Your task to perform on an android device: toggle pop-ups in chrome Image 0: 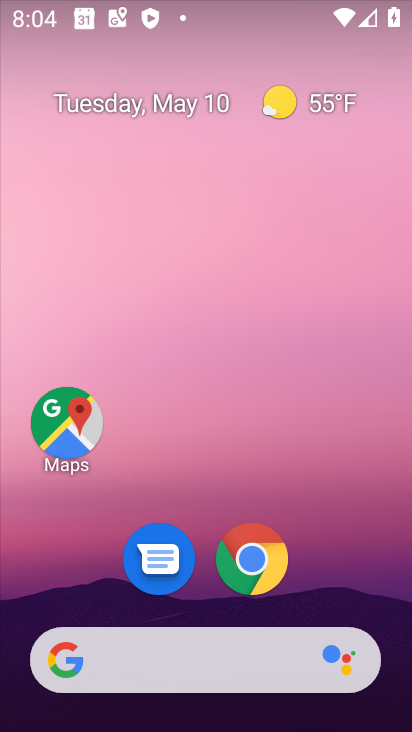
Step 0: click (248, 563)
Your task to perform on an android device: toggle pop-ups in chrome Image 1: 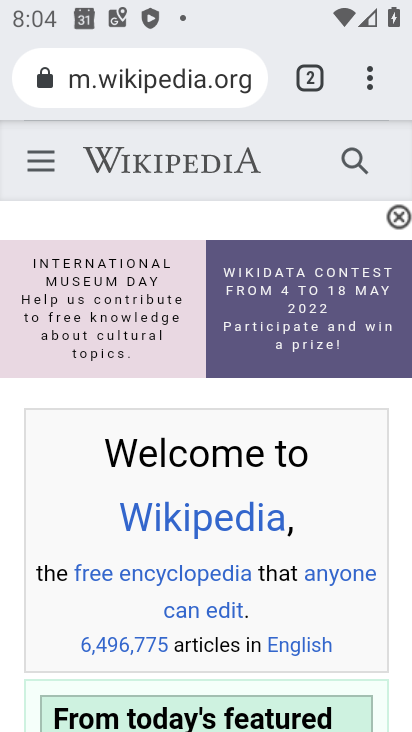
Step 1: click (367, 87)
Your task to perform on an android device: toggle pop-ups in chrome Image 2: 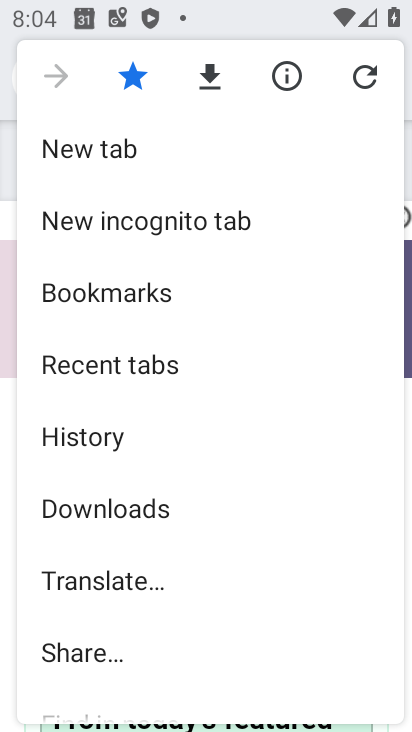
Step 2: drag from (134, 650) to (125, 309)
Your task to perform on an android device: toggle pop-ups in chrome Image 3: 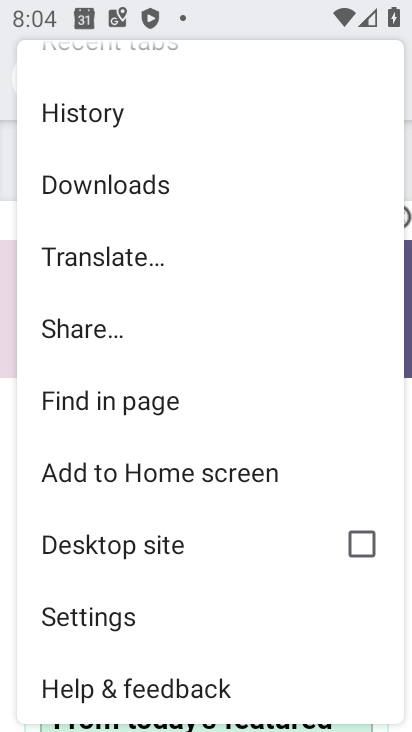
Step 3: click (113, 618)
Your task to perform on an android device: toggle pop-ups in chrome Image 4: 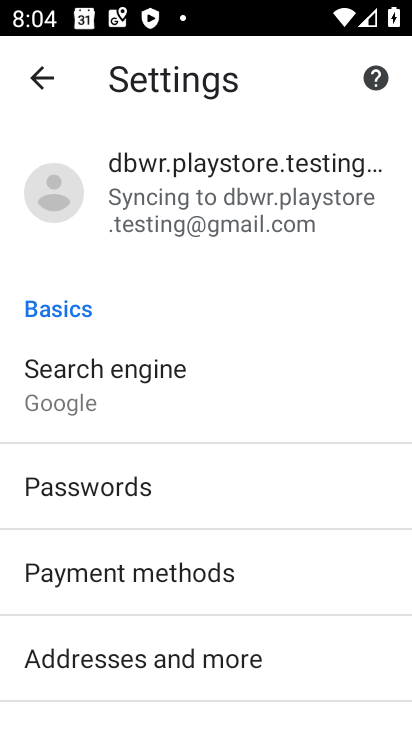
Step 4: drag from (132, 687) to (148, 252)
Your task to perform on an android device: toggle pop-ups in chrome Image 5: 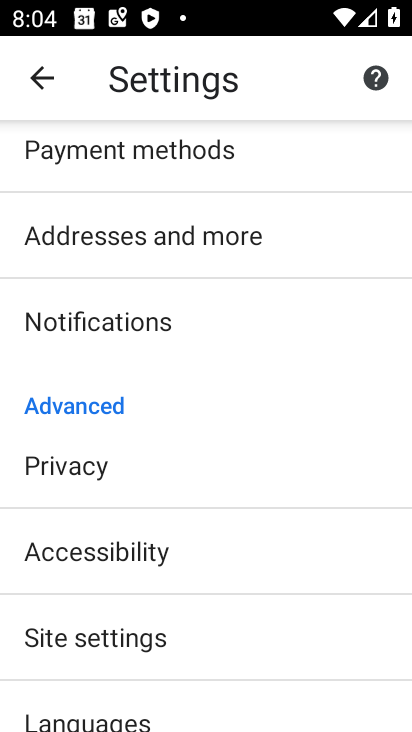
Step 5: drag from (135, 690) to (144, 426)
Your task to perform on an android device: toggle pop-ups in chrome Image 6: 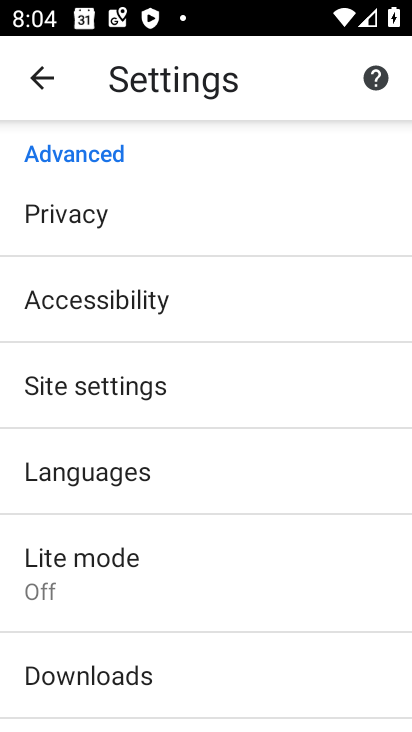
Step 6: click (115, 383)
Your task to perform on an android device: toggle pop-ups in chrome Image 7: 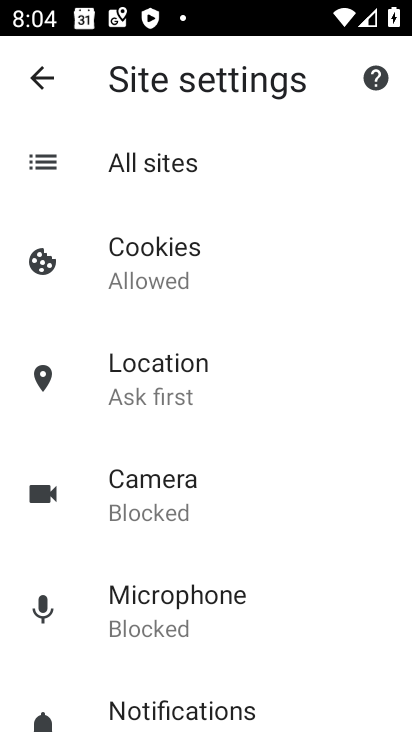
Step 7: drag from (180, 665) to (208, 368)
Your task to perform on an android device: toggle pop-ups in chrome Image 8: 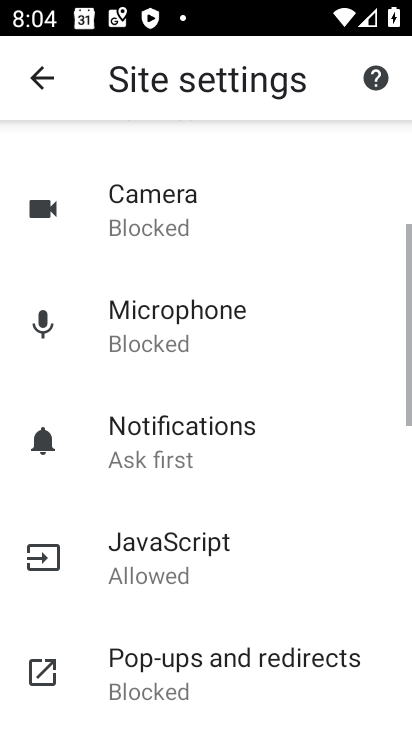
Step 8: click (164, 656)
Your task to perform on an android device: toggle pop-ups in chrome Image 9: 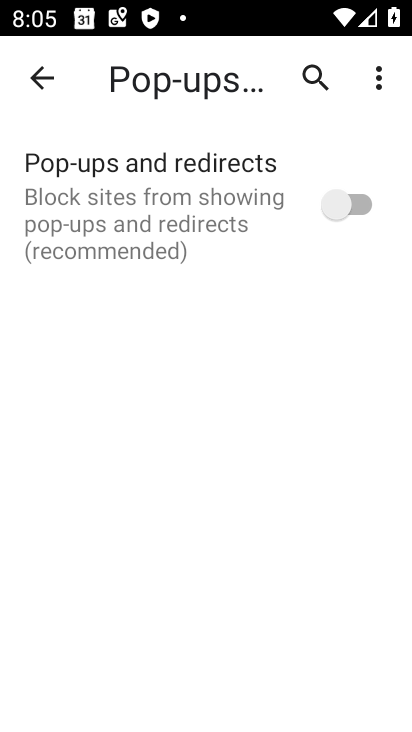
Step 9: click (359, 203)
Your task to perform on an android device: toggle pop-ups in chrome Image 10: 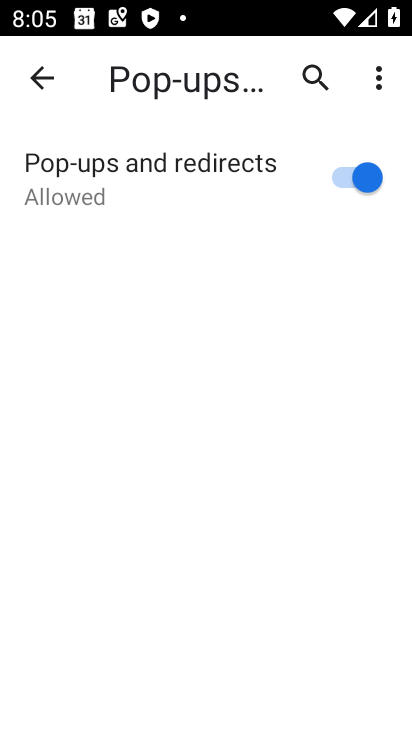
Step 10: task complete